Your task to perform on an android device: Open calendar and show me the second week of next month Image 0: 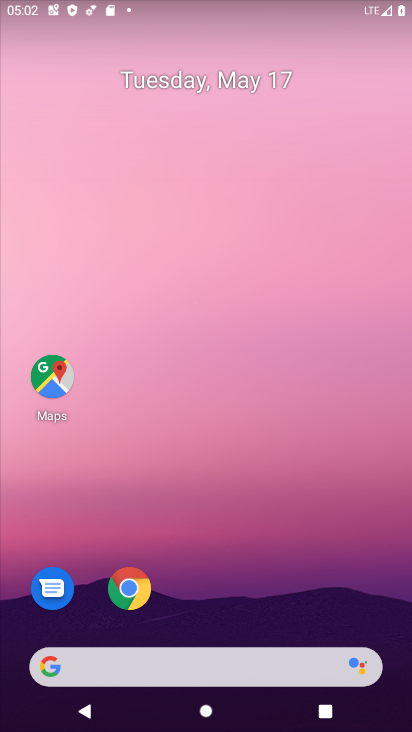
Step 0: drag from (265, 574) to (211, 122)
Your task to perform on an android device: Open calendar and show me the second week of next month Image 1: 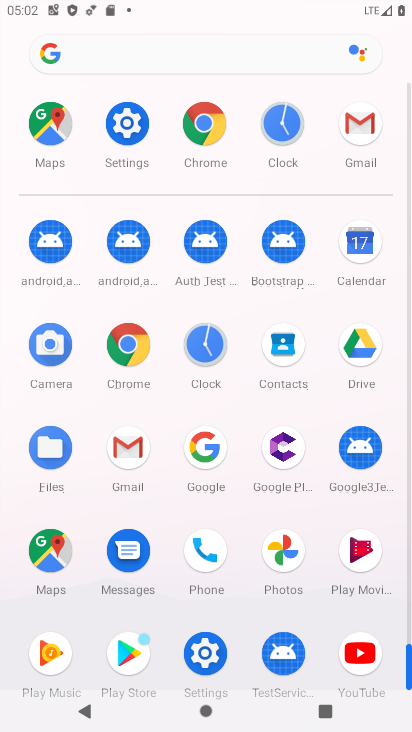
Step 1: click (357, 239)
Your task to perform on an android device: Open calendar and show me the second week of next month Image 2: 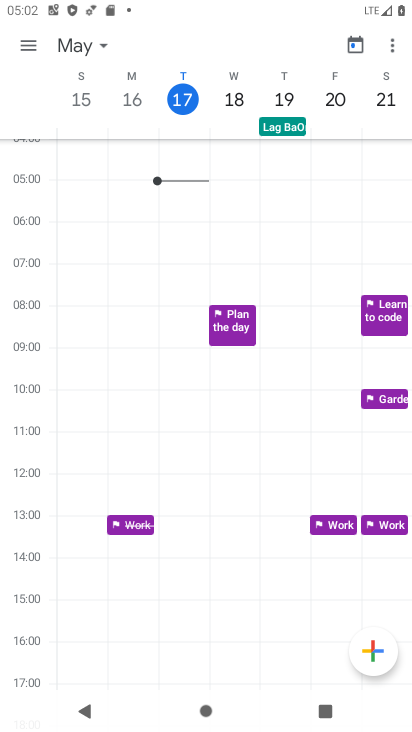
Step 2: click (354, 46)
Your task to perform on an android device: Open calendar and show me the second week of next month Image 3: 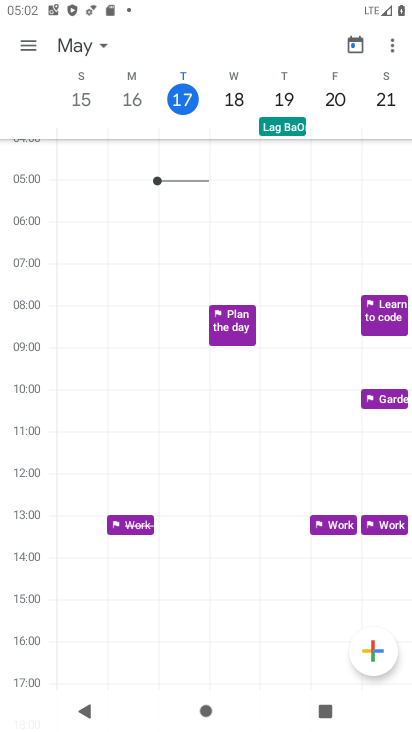
Step 3: click (99, 46)
Your task to perform on an android device: Open calendar and show me the second week of next month Image 4: 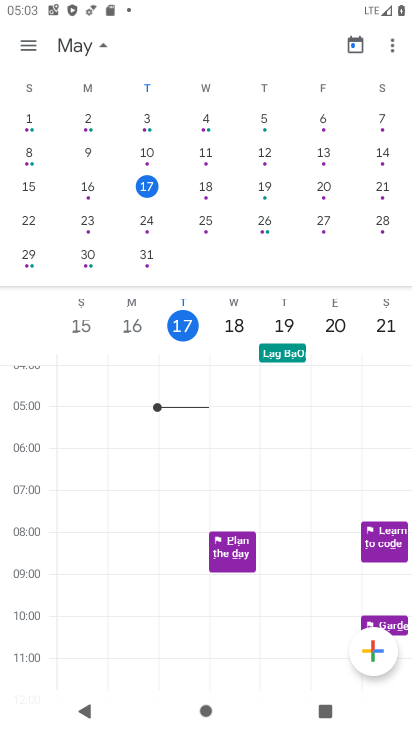
Step 4: drag from (360, 173) to (0, 262)
Your task to perform on an android device: Open calendar and show me the second week of next month Image 5: 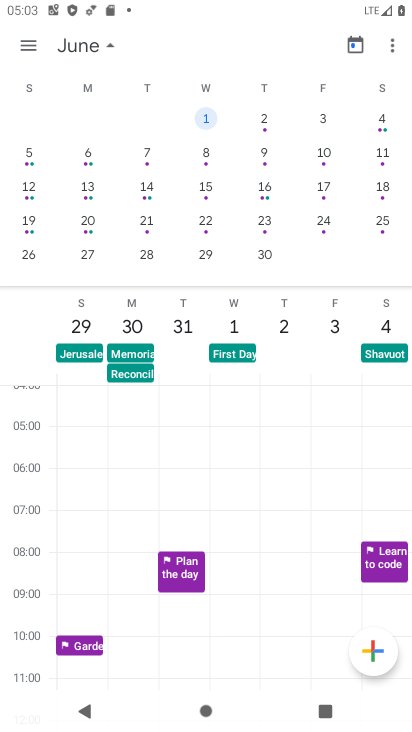
Step 5: click (85, 193)
Your task to perform on an android device: Open calendar and show me the second week of next month Image 6: 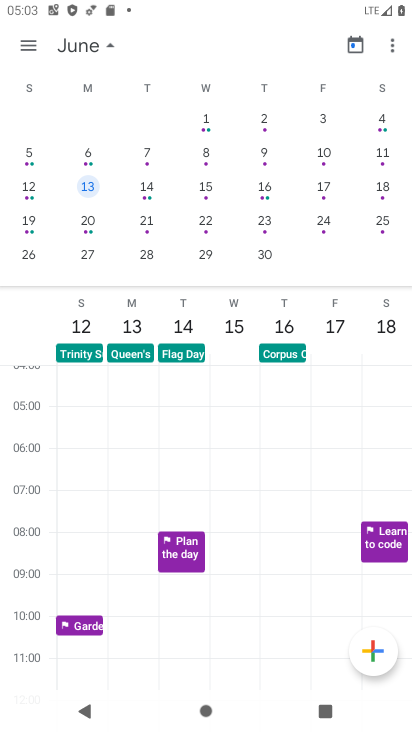
Step 6: click (25, 39)
Your task to perform on an android device: Open calendar and show me the second week of next month Image 7: 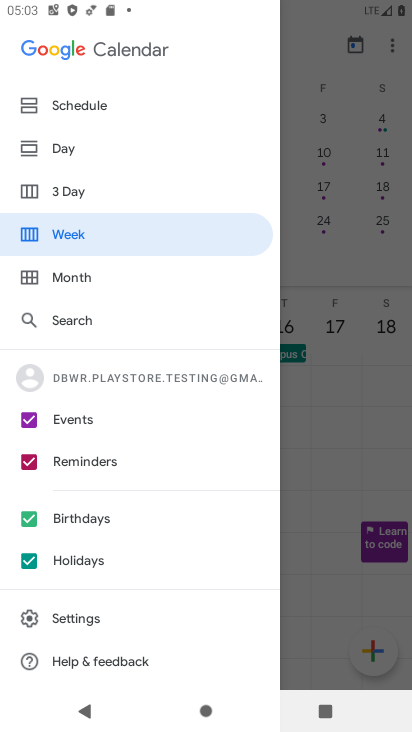
Step 7: click (73, 234)
Your task to perform on an android device: Open calendar and show me the second week of next month Image 8: 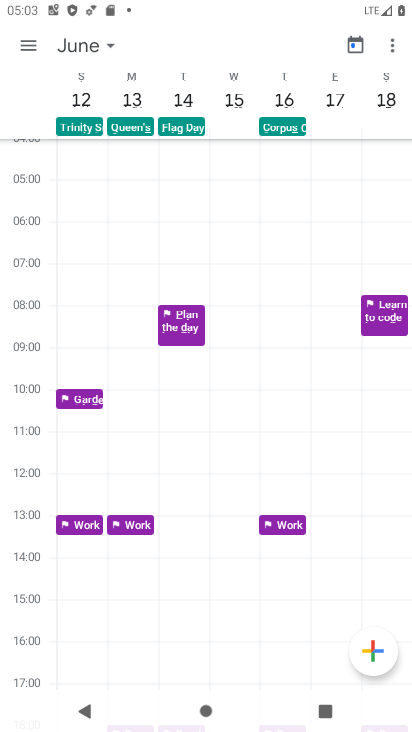
Step 8: task complete